Your task to perform on an android device: When is my next meeting? Image 0: 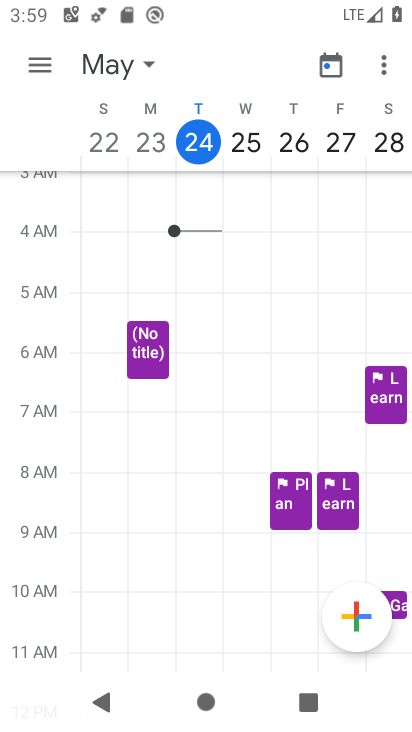
Step 0: press home button
Your task to perform on an android device: When is my next meeting? Image 1: 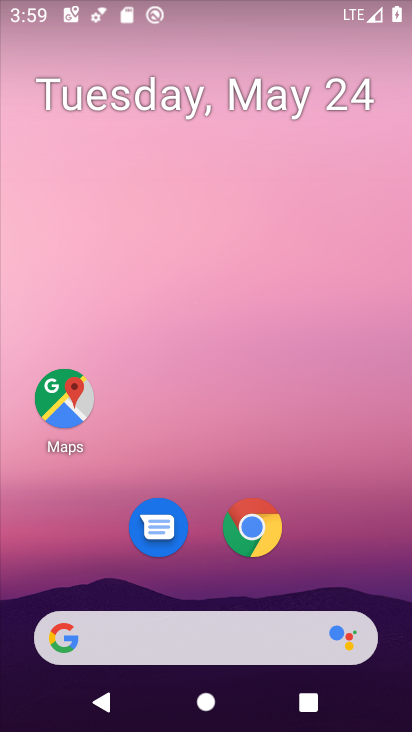
Step 1: drag from (364, 578) to (347, 13)
Your task to perform on an android device: When is my next meeting? Image 2: 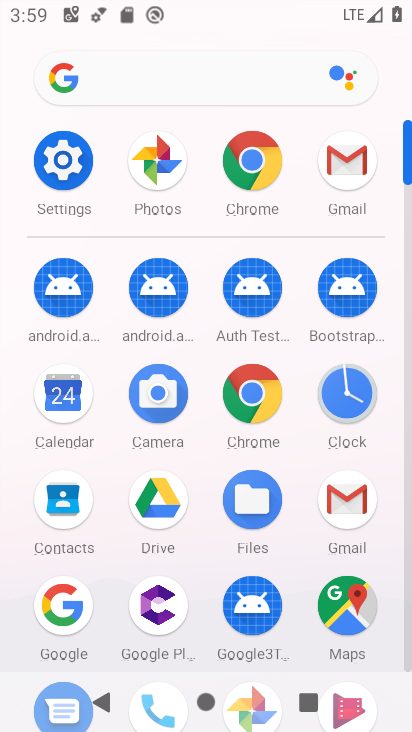
Step 2: click (56, 403)
Your task to perform on an android device: When is my next meeting? Image 3: 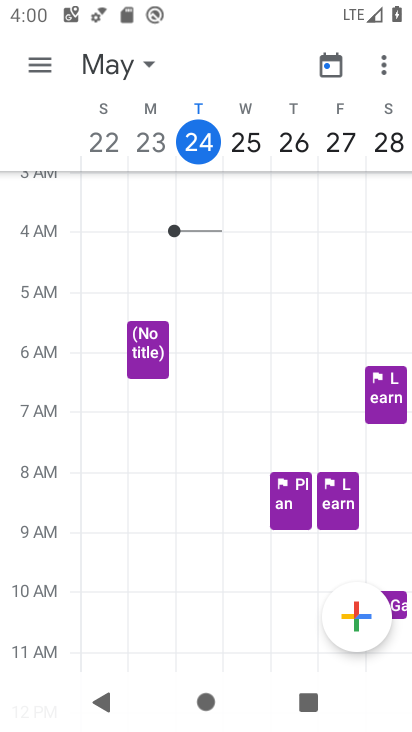
Step 3: click (32, 70)
Your task to perform on an android device: When is my next meeting? Image 4: 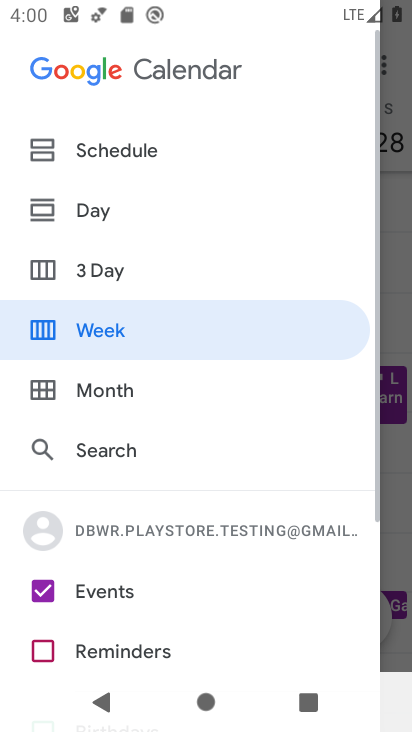
Step 4: click (72, 148)
Your task to perform on an android device: When is my next meeting? Image 5: 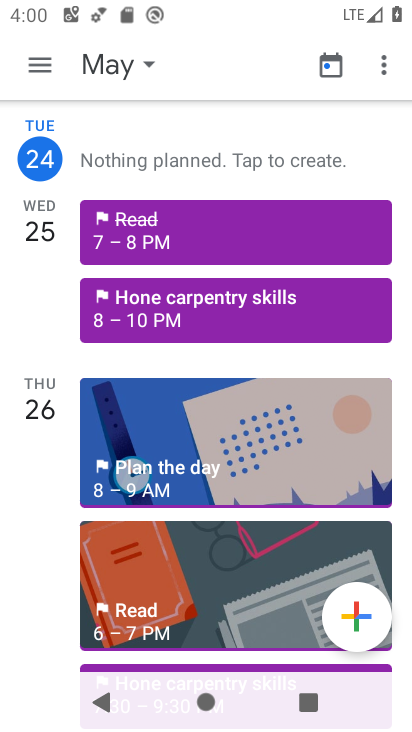
Step 5: click (143, 235)
Your task to perform on an android device: When is my next meeting? Image 6: 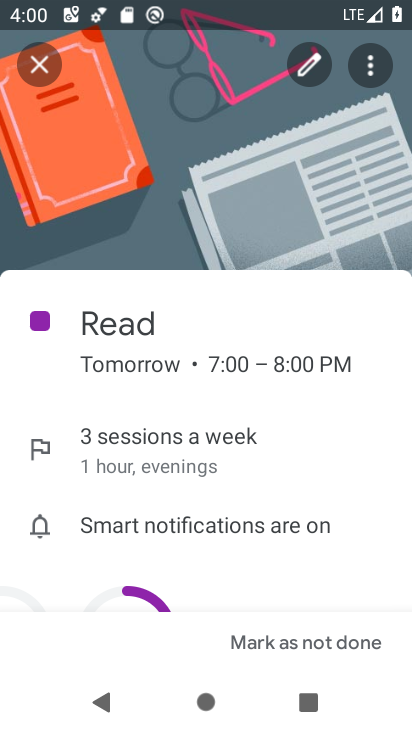
Step 6: task complete